Your task to perform on an android device: check data usage Image 0: 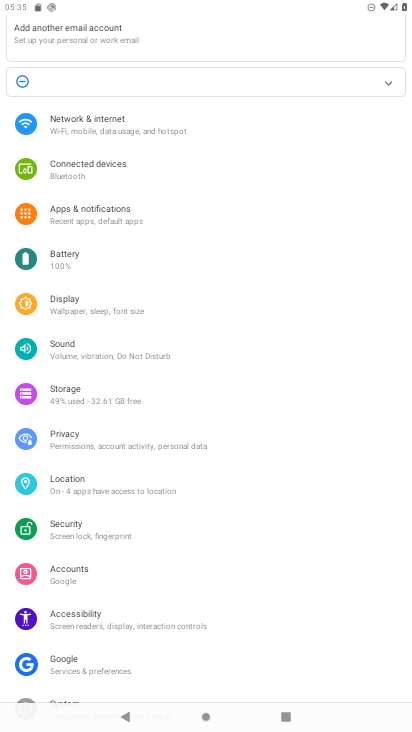
Step 0: press home button
Your task to perform on an android device: check data usage Image 1: 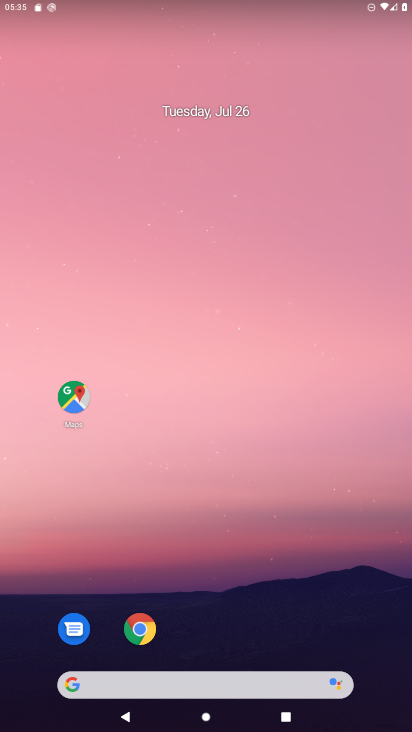
Step 1: drag from (194, 582) to (209, 71)
Your task to perform on an android device: check data usage Image 2: 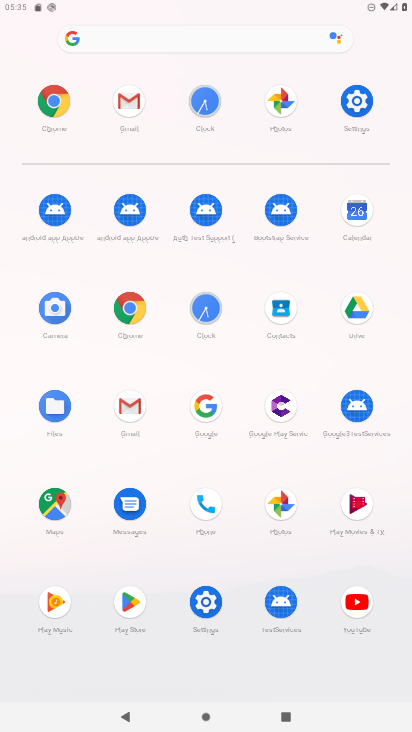
Step 2: click (353, 105)
Your task to perform on an android device: check data usage Image 3: 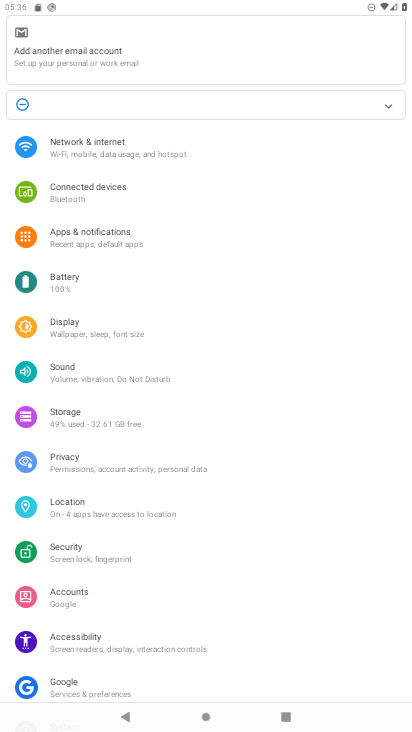
Step 3: click (122, 154)
Your task to perform on an android device: check data usage Image 4: 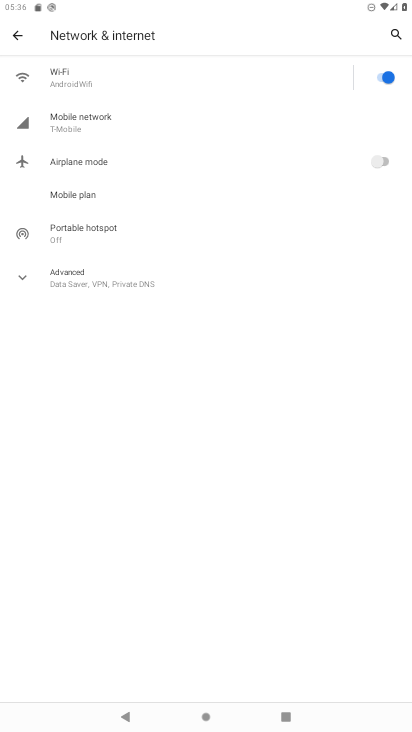
Step 4: click (103, 125)
Your task to perform on an android device: check data usage Image 5: 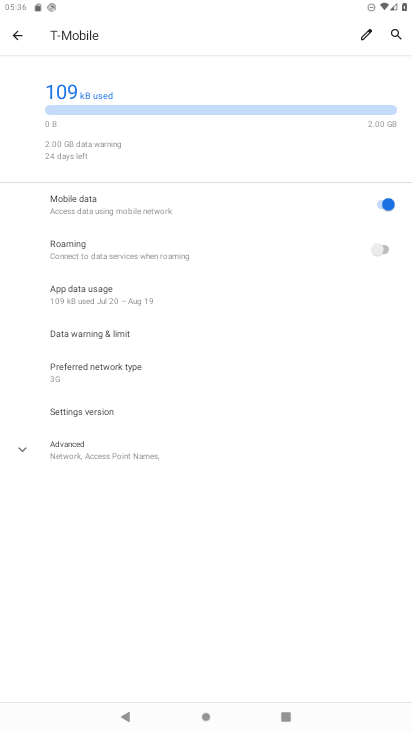
Step 5: task complete